Your task to perform on an android device: Go to calendar. Show me events next week Image 0: 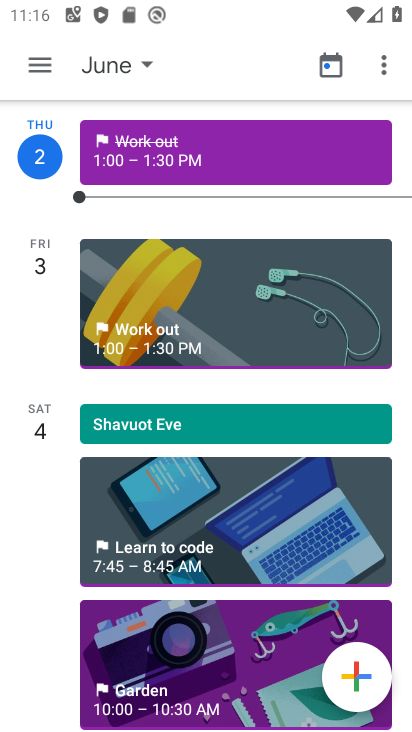
Step 0: click (34, 65)
Your task to perform on an android device: Go to calendar. Show me events next week Image 1: 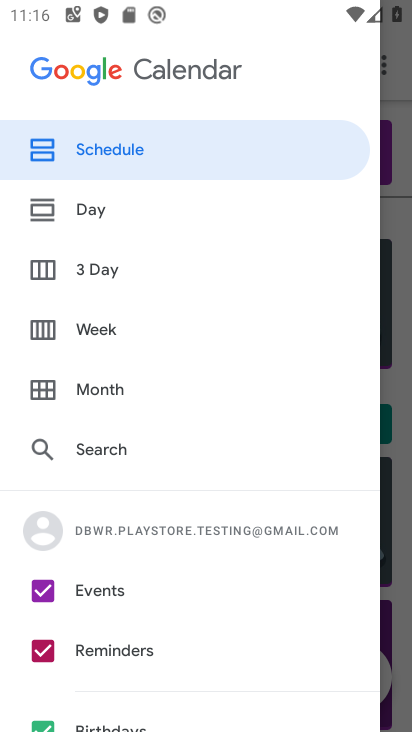
Step 1: drag from (153, 657) to (158, 320)
Your task to perform on an android device: Go to calendar. Show me events next week Image 2: 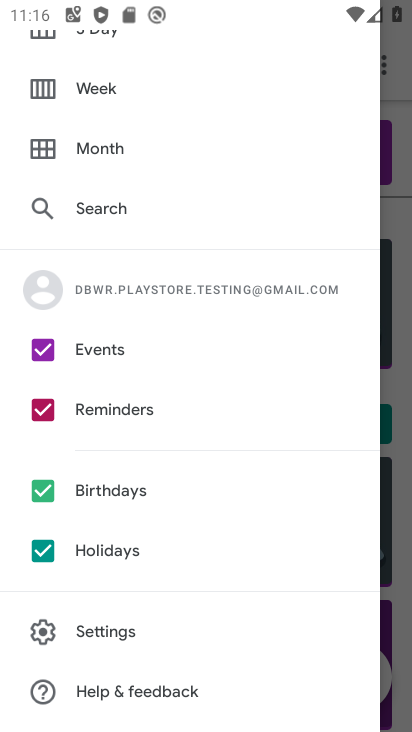
Step 2: click (40, 551)
Your task to perform on an android device: Go to calendar. Show me events next week Image 3: 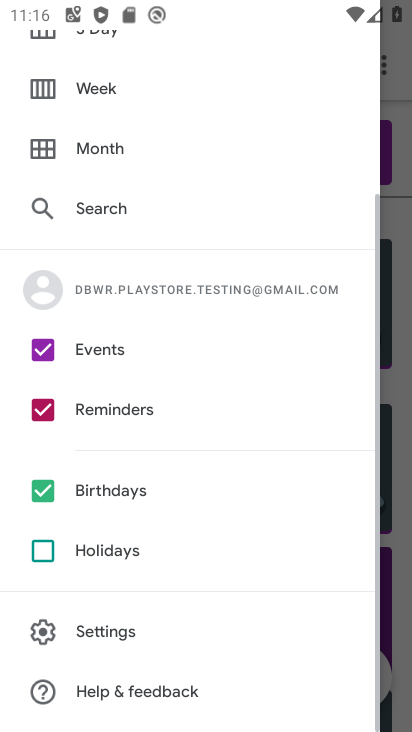
Step 3: click (42, 490)
Your task to perform on an android device: Go to calendar. Show me events next week Image 4: 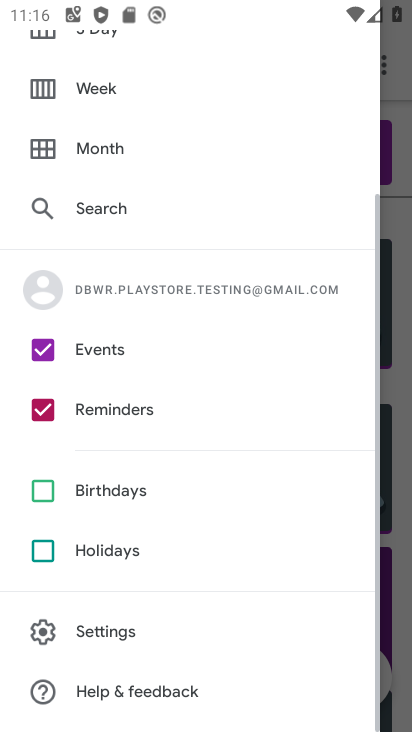
Step 4: click (43, 409)
Your task to perform on an android device: Go to calendar. Show me events next week Image 5: 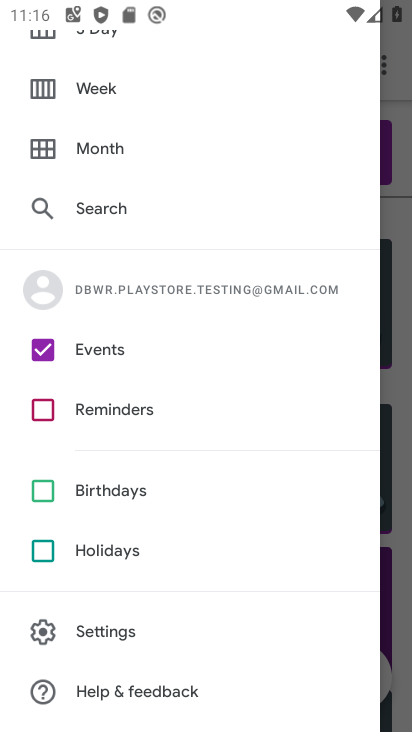
Step 5: click (91, 93)
Your task to perform on an android device: Go to calendar. Show me events next week Image 6: 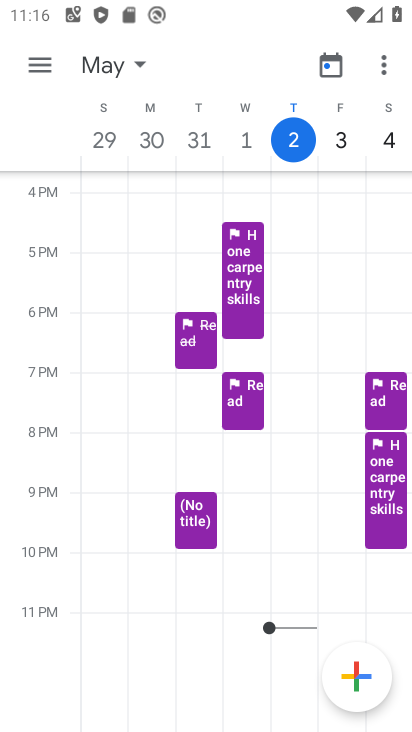
Step 6: task complete